Your task to perform on an android device: View the shopping cart on target. Search for acer nitro on target, select the first entry, and add it to the cart. Image 0: 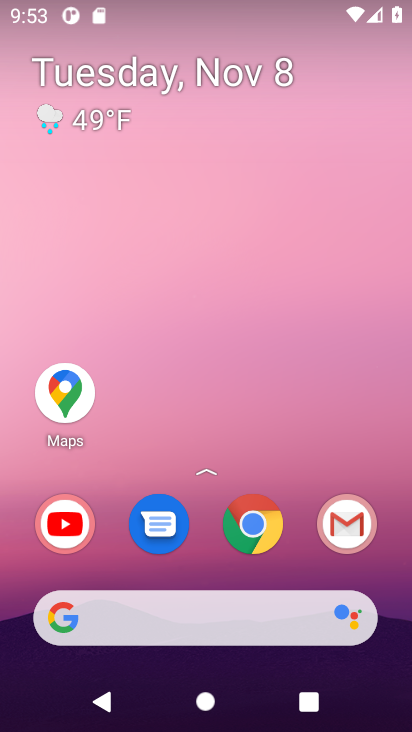
Step 0: click (262, 519)
Your task to perform on an android device: View the shopping cart on target. Search for acer nitro on target, select the first entry, and add it to the cart. Image 1: 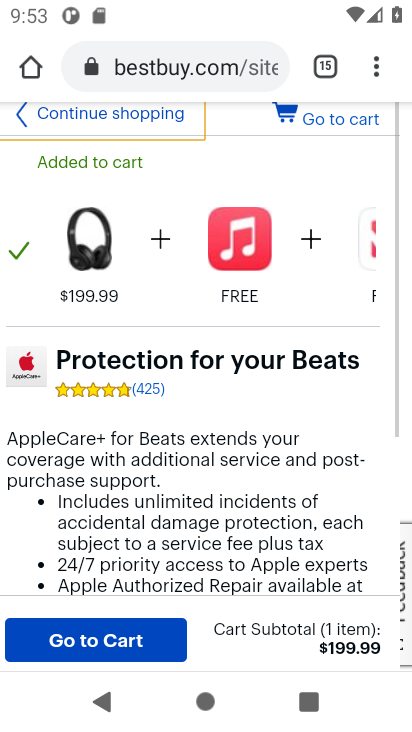
Step 1: click (190, 74)
Your task to perform on an android device: View the shopping cart on target. Search for acer nitro on target, select the first entry, and add it to the cart. Image 2: 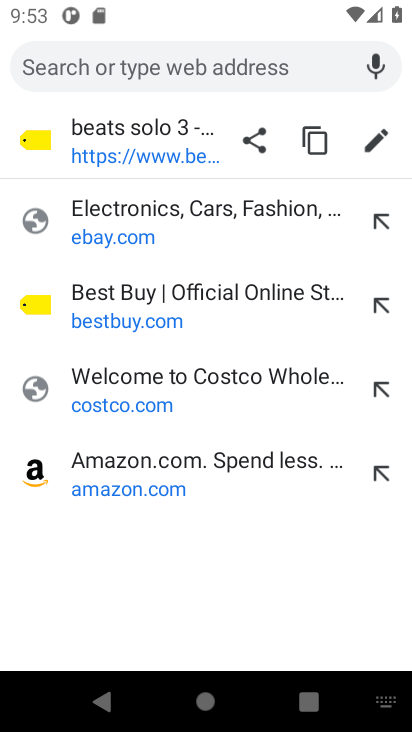
Step 2: type "target.com"
Your task to perform on an android device: View the shopping cart on target. Search for acer nitro on target, select the first entry, and add it to the cart. Image 3: 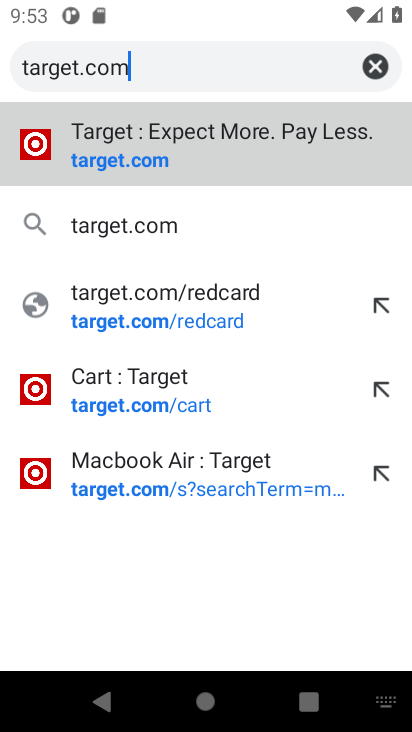
Step 3: click (121, 157)
Your task to perform on an android device: View the shopping cart on target. Search for acer nitro on target, select the first entry, and add it to the cart. Image 4: 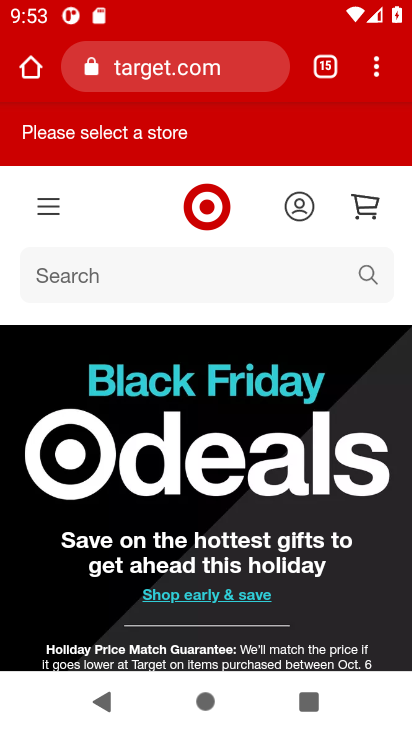
Step 4: click (363, 208)
Your task to perform on an android device: View the shopping cart on target. Search for acer nitro on target, select the first entry, and add it to the cart. Image 5: 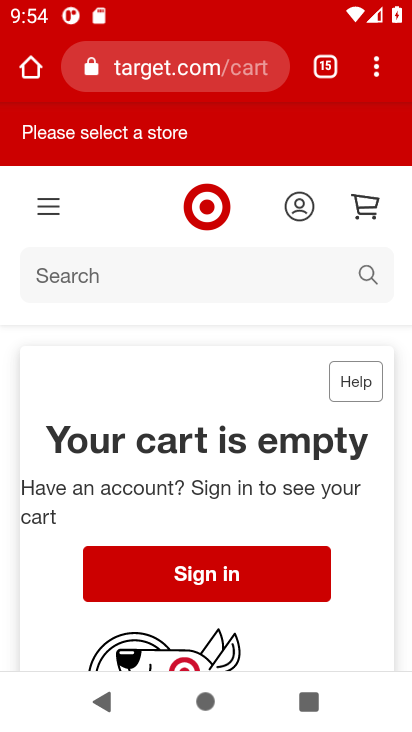
Step 5: click (369, 275)
Your task to perform on an android device: View the shopping cart on target. Search for acer nitro on target, select the first entry, and add it to the cart. Image 6: 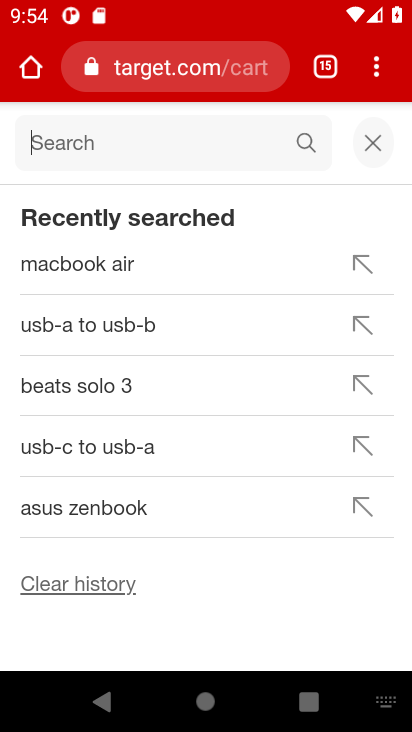
Step 6: type "acer nitro"
Your task to perform on an android device: View the shopping cart on target. Search for acer nitro on target, select the first entry, and add it to the cart. Image 7: 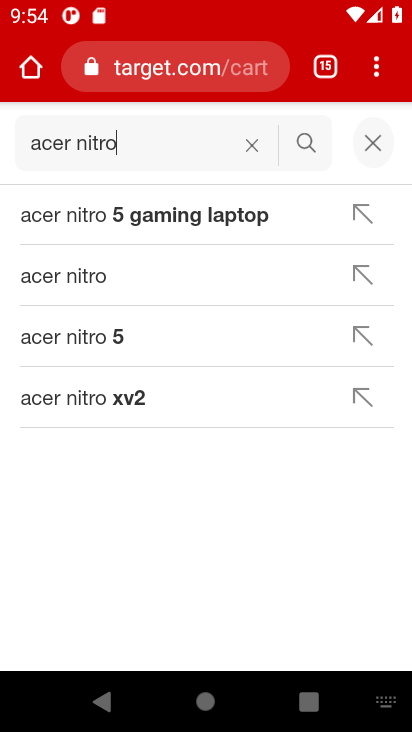
Step 7: click (73, 284)
Your task to perform on an android device: View the shopping cart on target. Search for acer nitro on target, select the first entry, and add it to the cart. Image 8: 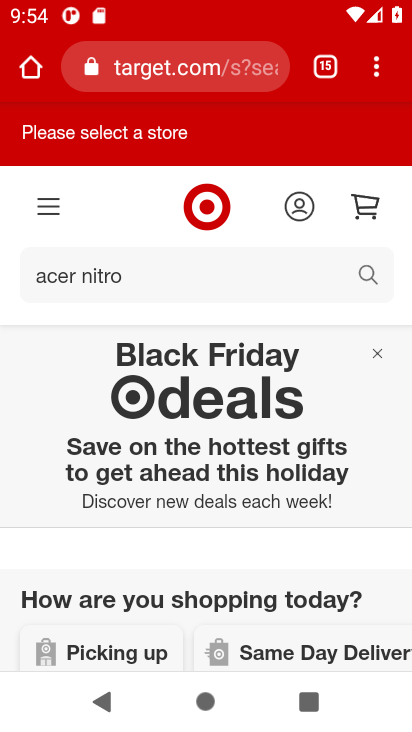
Step 8: drag from (183, 448) to (211, 183)
Your task to perform on an android device: View the shopping cart on target. Search for acer nitro on target, select the first entry, and add it to the cart. Image 9: 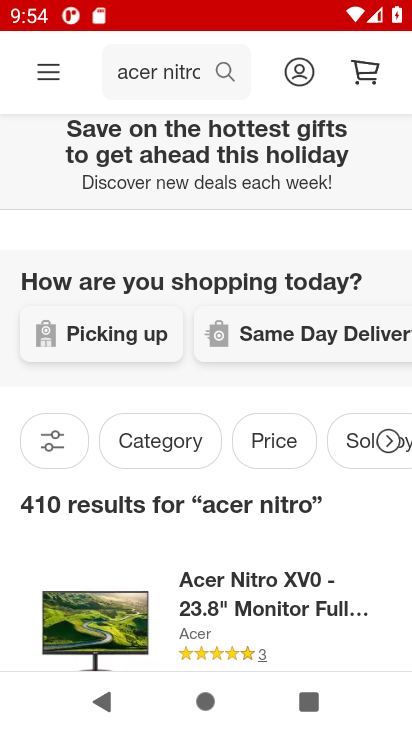
Step 9: drag from (195, 465) to (210, 195)
Your task to perform on an android device: View the shopping cart on target. Search for acer nitro on target, select the first entry, and add it to the cart. Image 10: 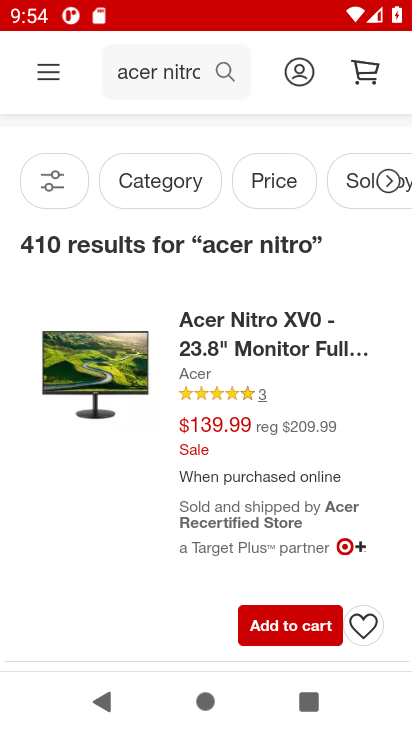
Step 10: click (276, 626)
Your task to perform on an android device: View the shopping cart on target. Search for acer nitro on target, select the first entry, and add it to the cart. Image 11: 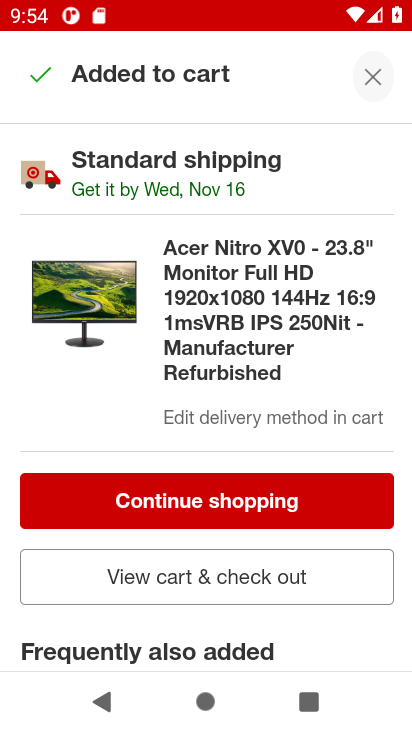
Step 11: click (228, 580)
Your task to perform on an android device: View the shopping cart on target. Search for acer nitro on target, select the first entry, and add it to the cart. Image 12: 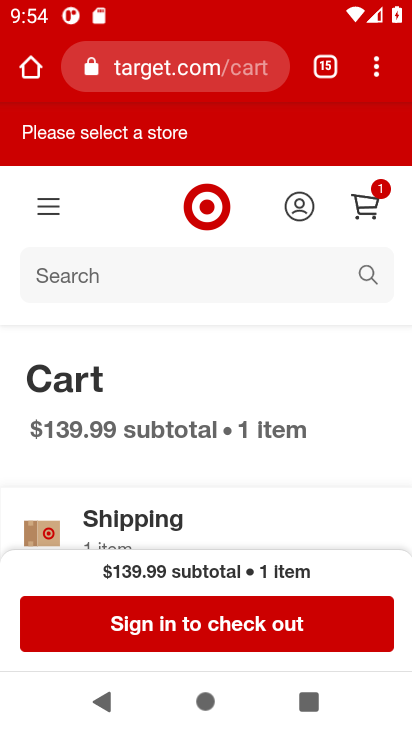
Step 12: task complete